Your task to perform on an android device: What's on my calendar tomorrow? Image 0: 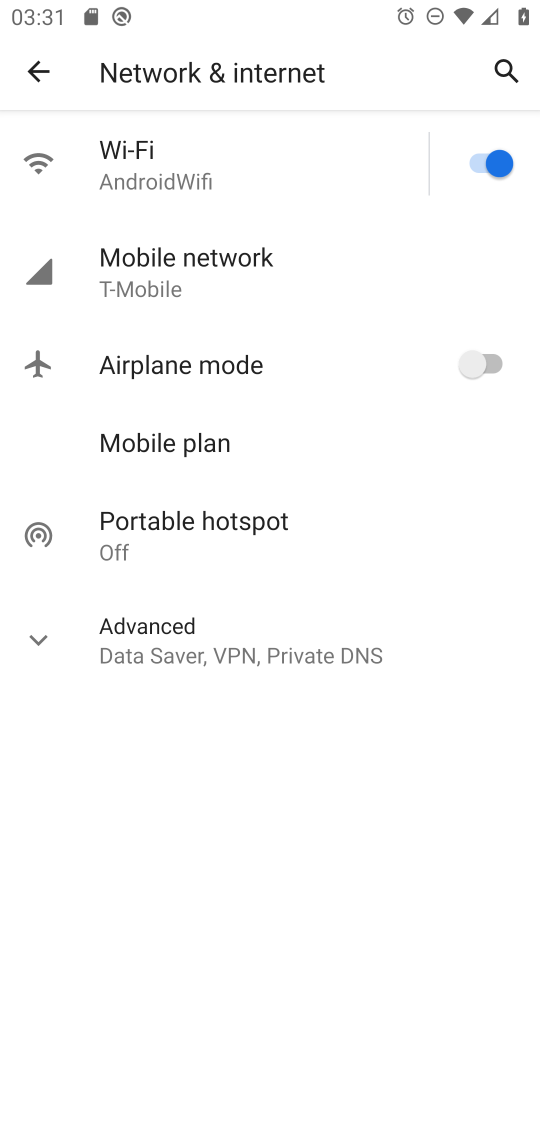
Step 0: press home button
Your task to perform on an android device: What's on my calendar tomorrow? Image 1: 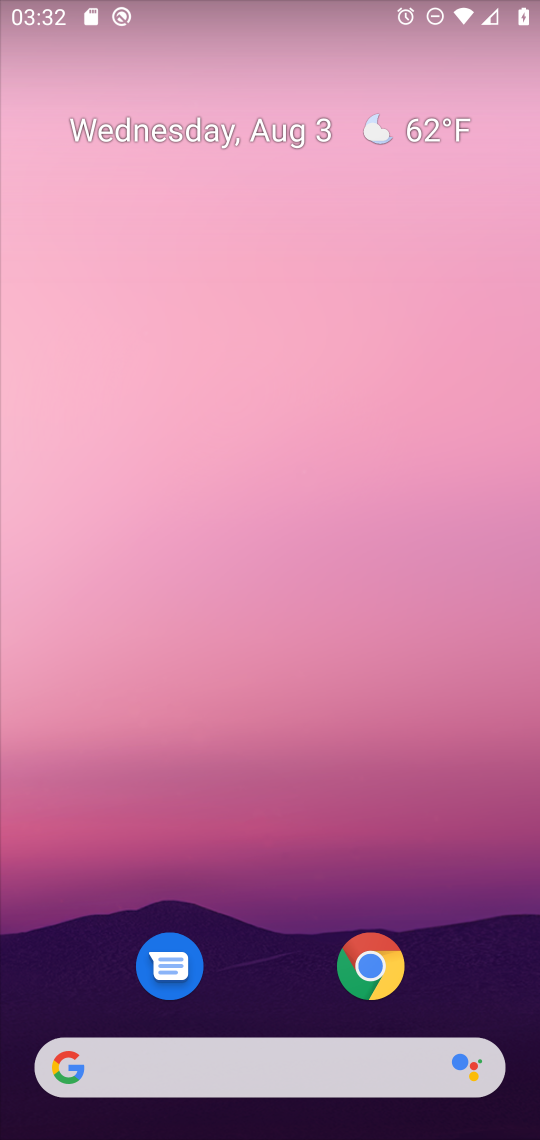
Step 1: drag from (243, 964) to (241, 375)
Your task to perform on an android device: What's on my calendar tomorrow? Image 2: 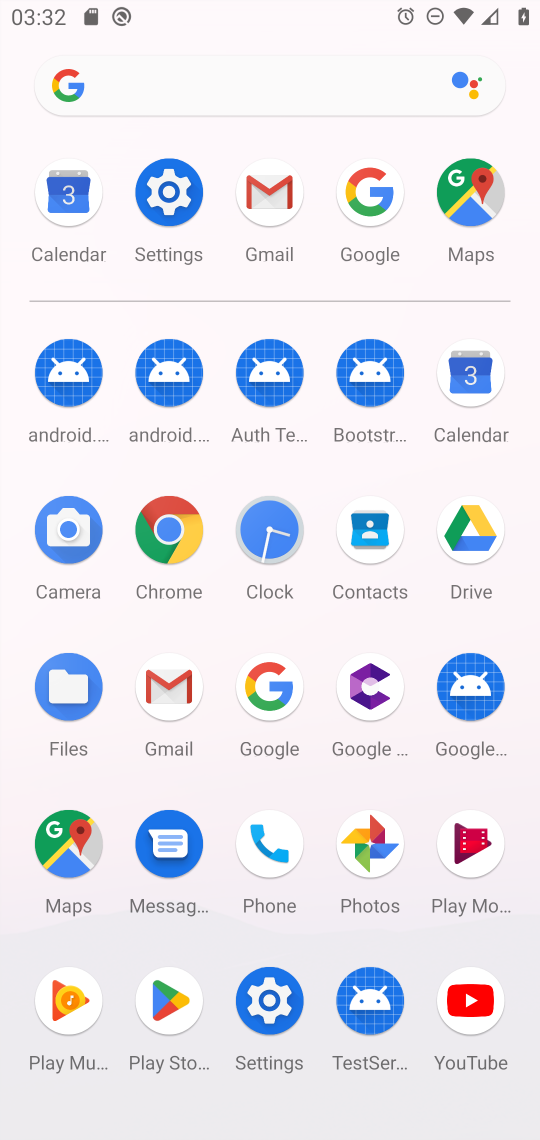
Step 2: click (473, 410)
Your task to perform on an android device: What's on my calendar tomorrow? Image 3: 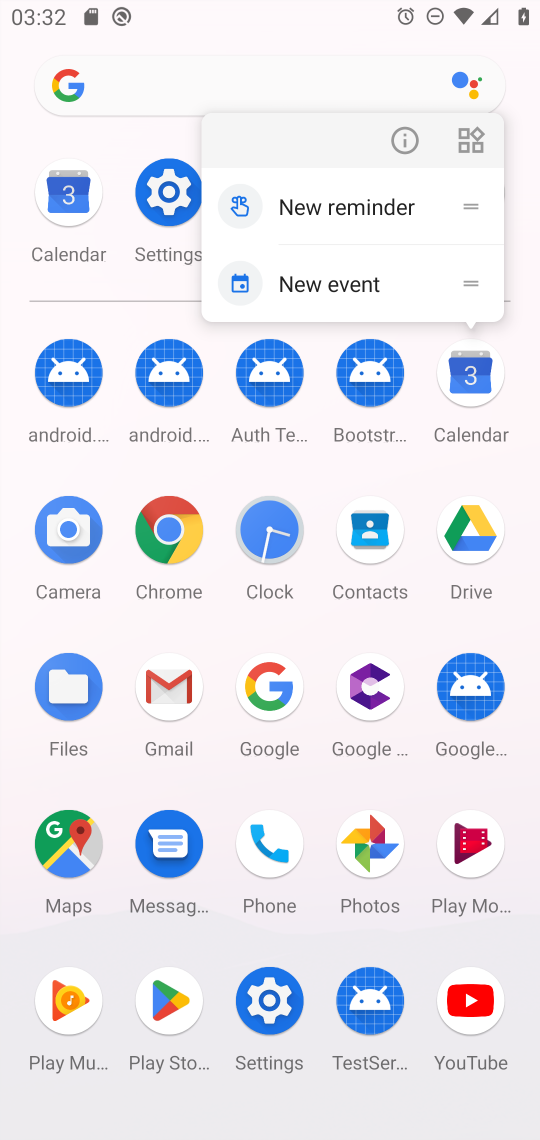
Step 3: click (467, 392)
Your task to perform on an android device: What's on my calendar tomorrow? Image 4: 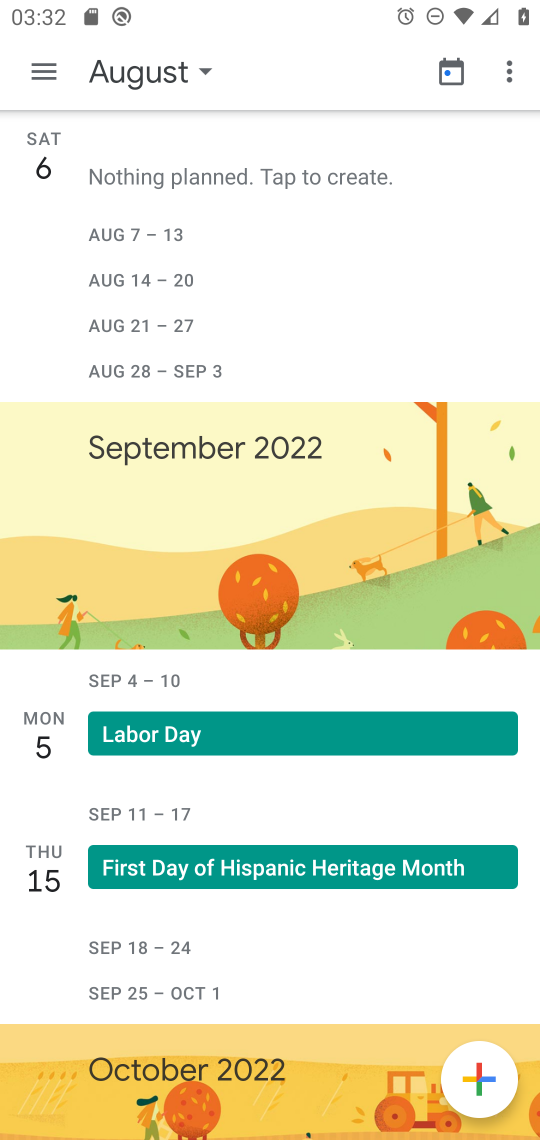
Step 4: click (186, 73)
Your task to perform on an android device: What's on my calendar tomorrow? Image 5: 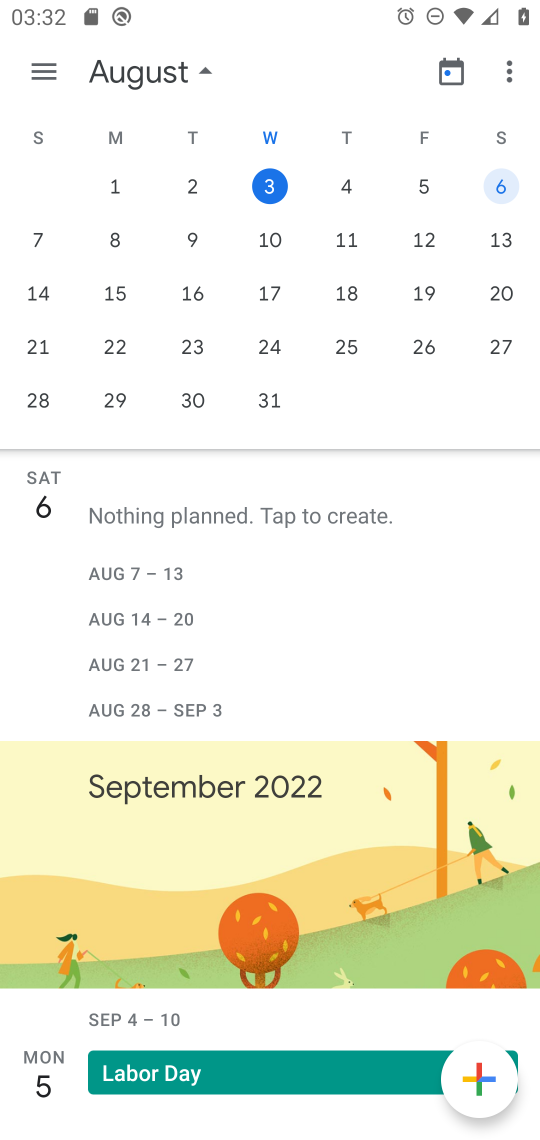
Step 5: click (346, 192)
Your task to perform on an android device: What's on my calendar tomorrow? Image 6: 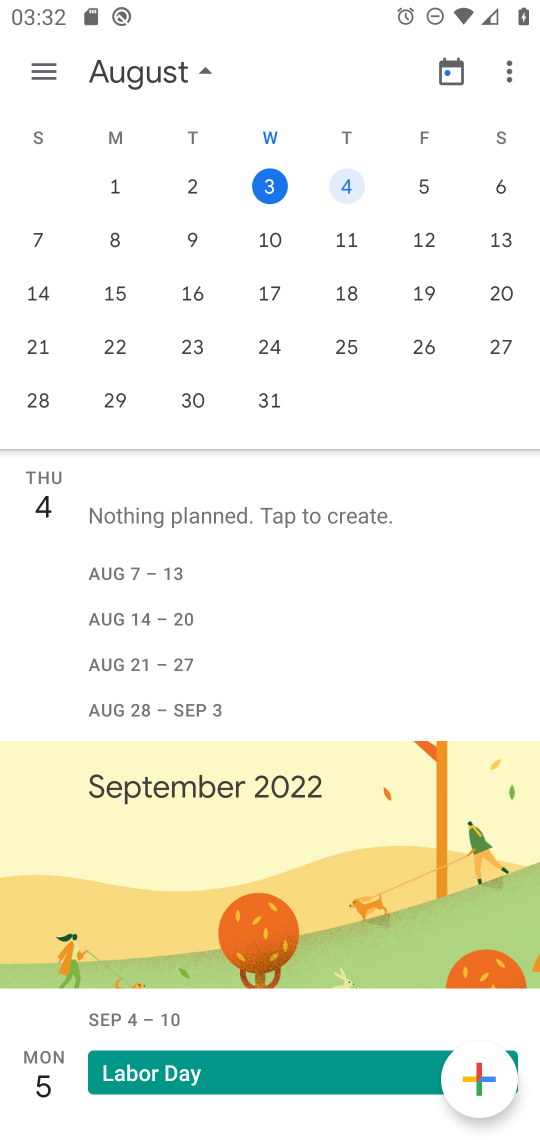
Step 6: task complete